Your task to perform on an android device: allow notifications from all sites in the chrome app Image 0: 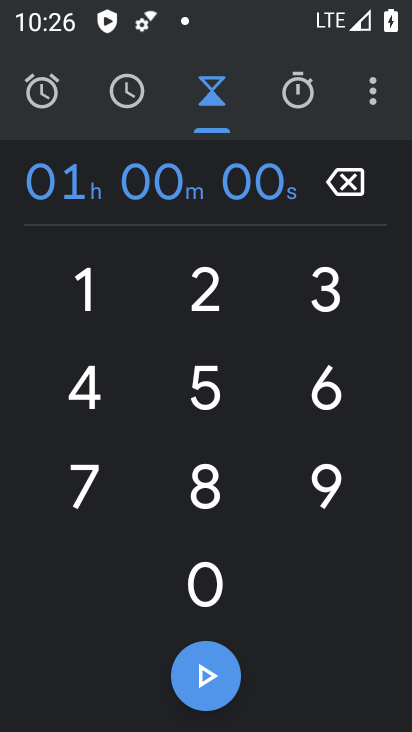
Step 0: press home button
Your task to perform on an android device: allow notifications from all sites in the chrome app Image 1: 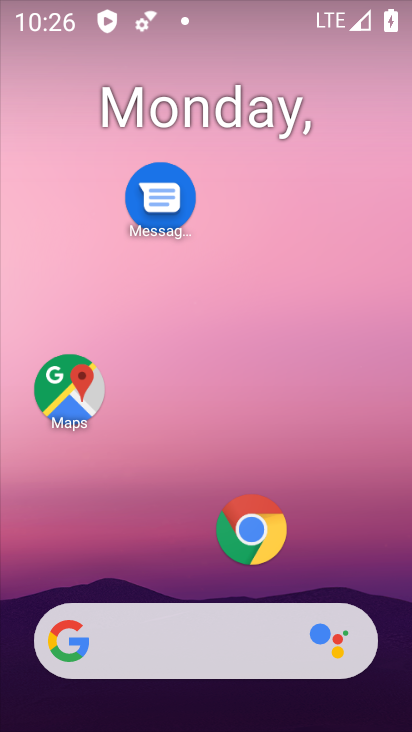
Step 1: drag from (169, 521) to (236, 71)
Your task to perform on an android device: allow notifications from all sites in the chrome app Image 2: 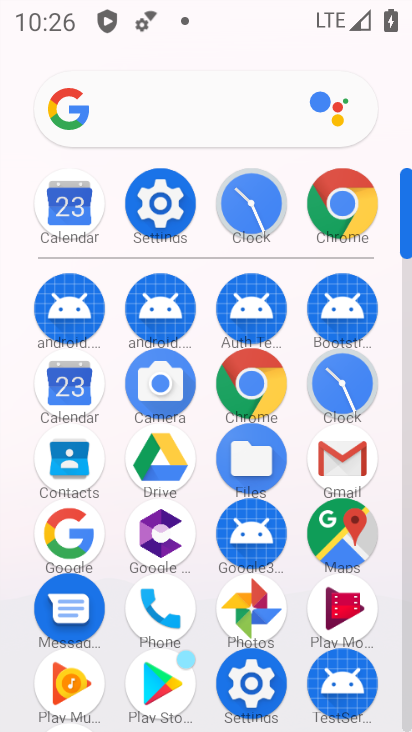
Step 2: click (255, 386)
Your task to perform on an android device: allow notifications from all sites in the chrome app Image 3: 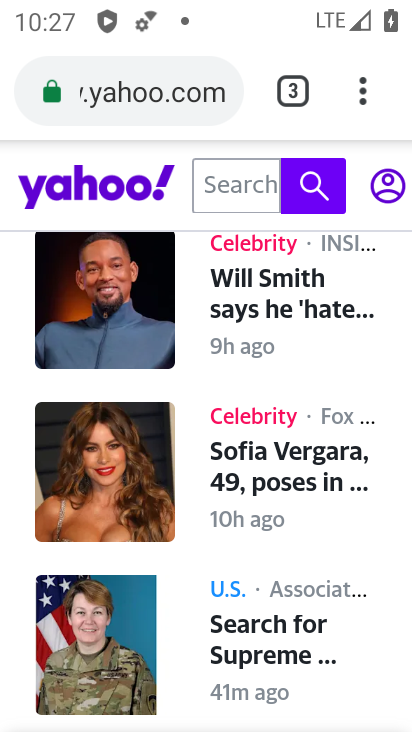
Step 3: click (362, 101)
Your task to perform on an android device: allow notifications from all sites in the chrome app Image 4: 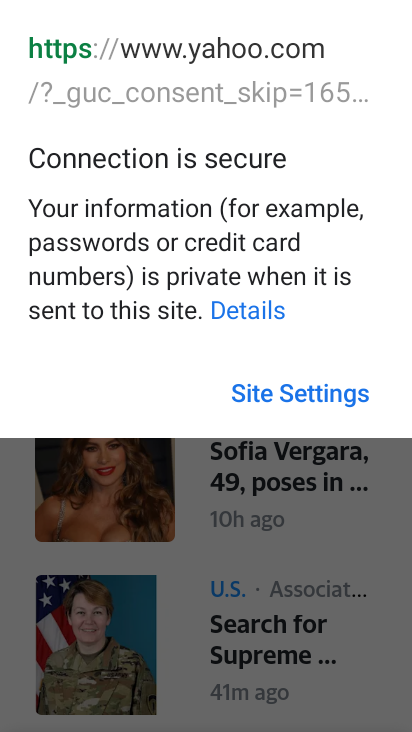
Step 4: click (373, 519)
Your task to perform on an android device: allow notifications from all sites in the chrome app Image 5: 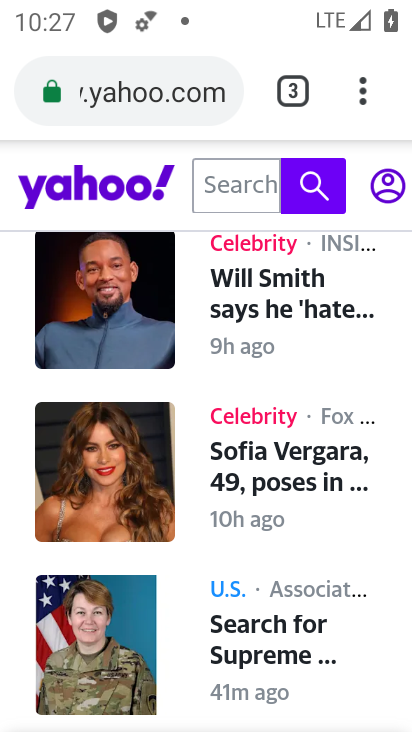
Step 5: click (360, 97)
Your task to perform on an android device: allow notifications from all sites in the chrome app Image 6: 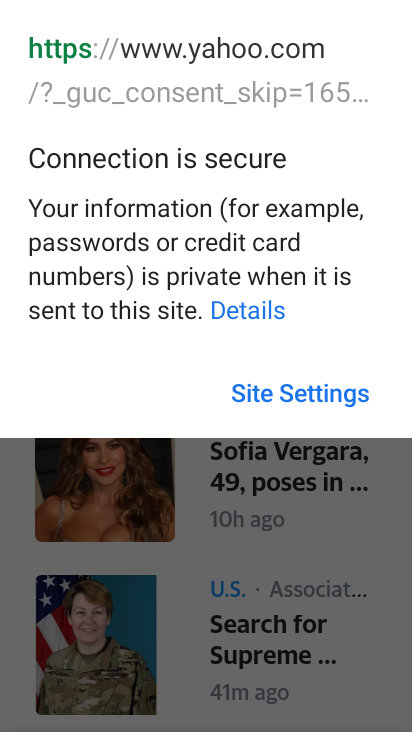
Step 6: task complete